Your task to perform on an android device: find photos in the google photos app Image 0: 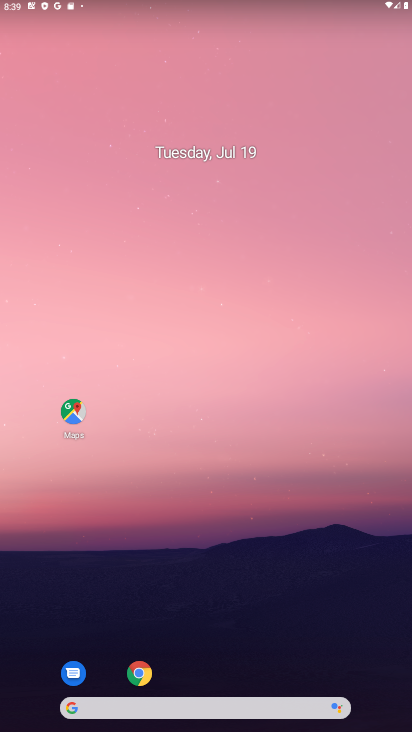
Step 0: drag from (248, 682) to (242, 222)
Your task to perform on an android device: find photos in the google photos app Image 1: 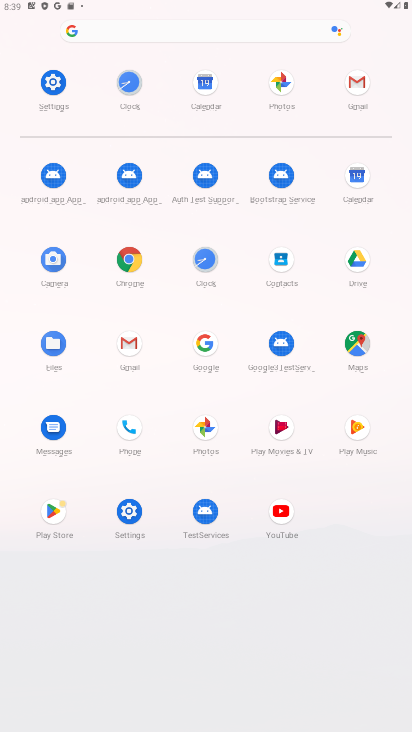
Step 1: click (210, 447)
Your task to perform on an android device: find photos in the google photos app Image 2: 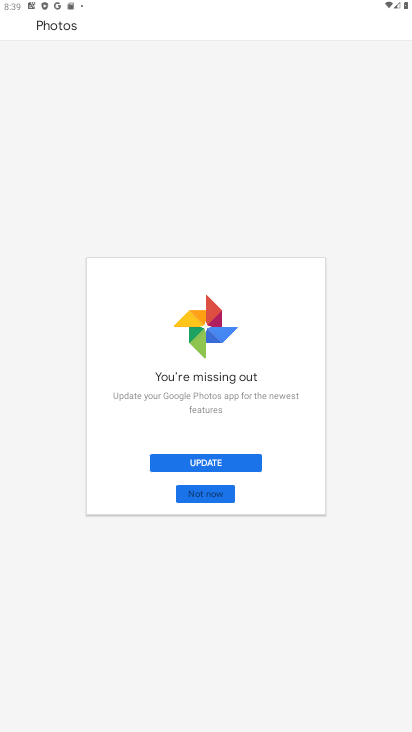
Step 2: click (228, 468)
Your task to perform on an android device: find photos in the google photos app Image 3: 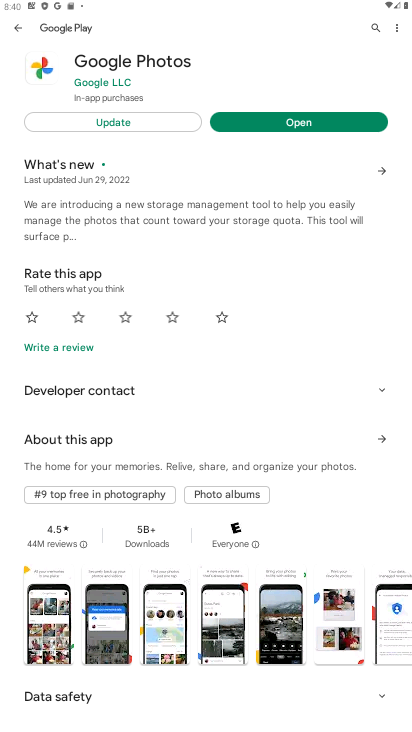
Step 3: click (110, 125)
Your task to perform on an android device: find photos in the google photos app Image 4: 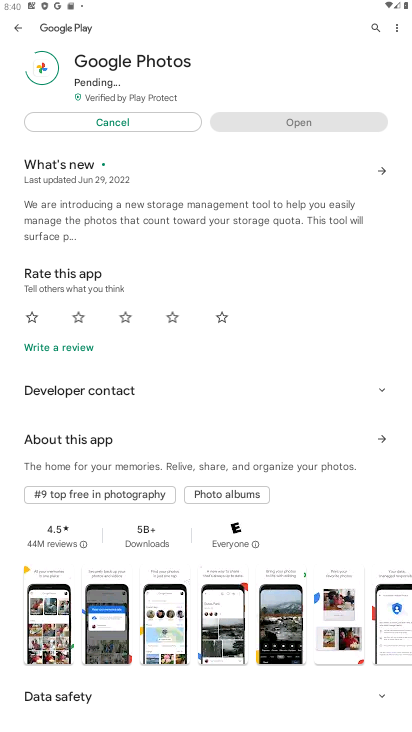
Step 4: task complete